Your task to perform on an android device: What's the weather going to be this weekend? Image 0: 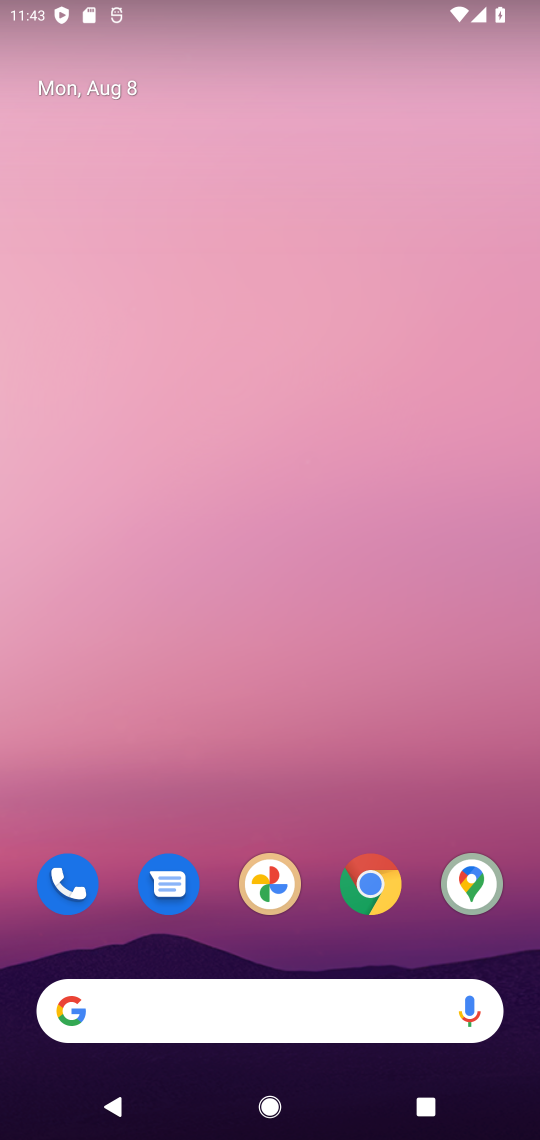
Step 0: click (100, 1023)
Your task to perform on an android device: What's the weather going to be this weekend? Image 1: 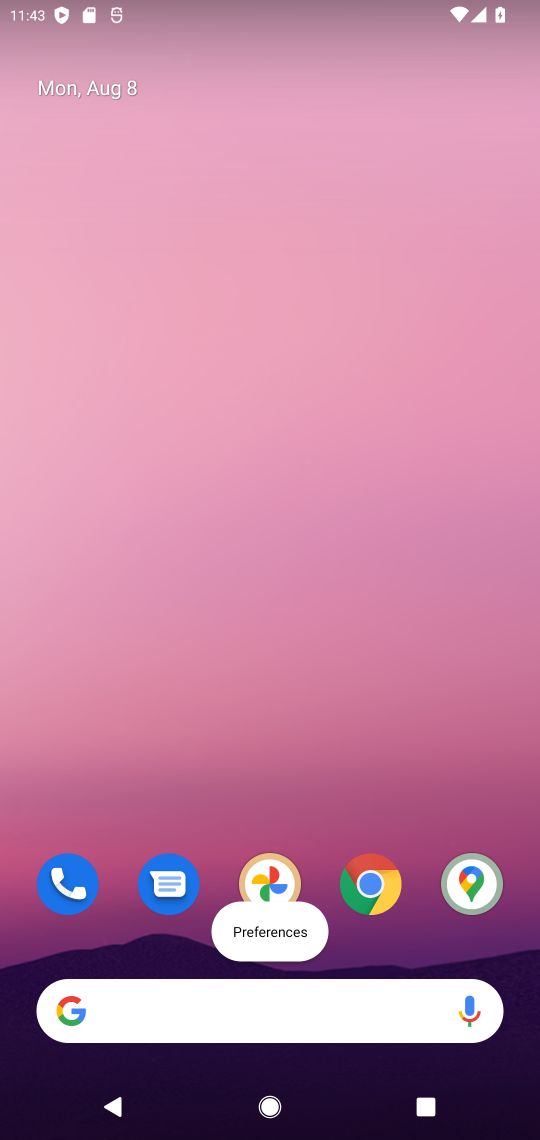
Step 1: type "What's the weather going to be this weekend?"
Your task to perform on an android device: What's the weather going to be this weekend? Image 2: 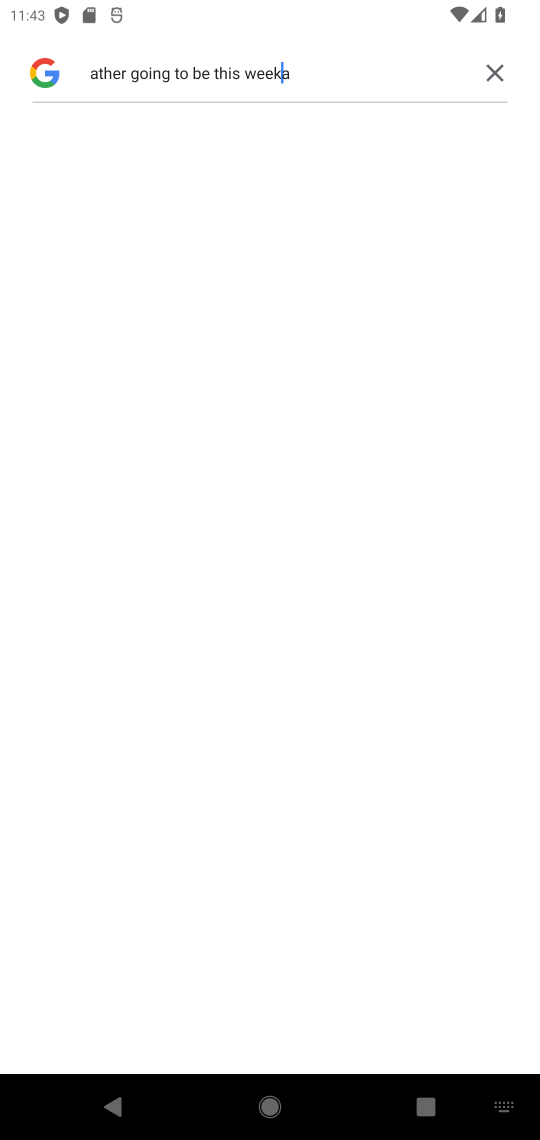
Step 2: type ""
Your task to perform on an android device: What's the weather going to be this weekend? Image 3: 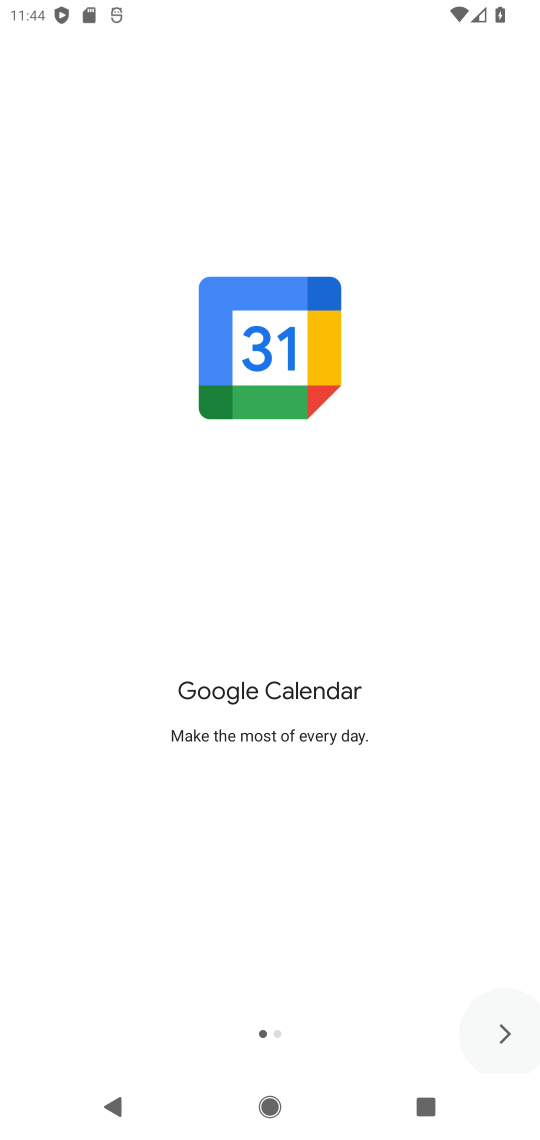
Step 3: click (513, 1018)
Your task to perform on an android device: What's the weather going to be this weekend? Image 4: 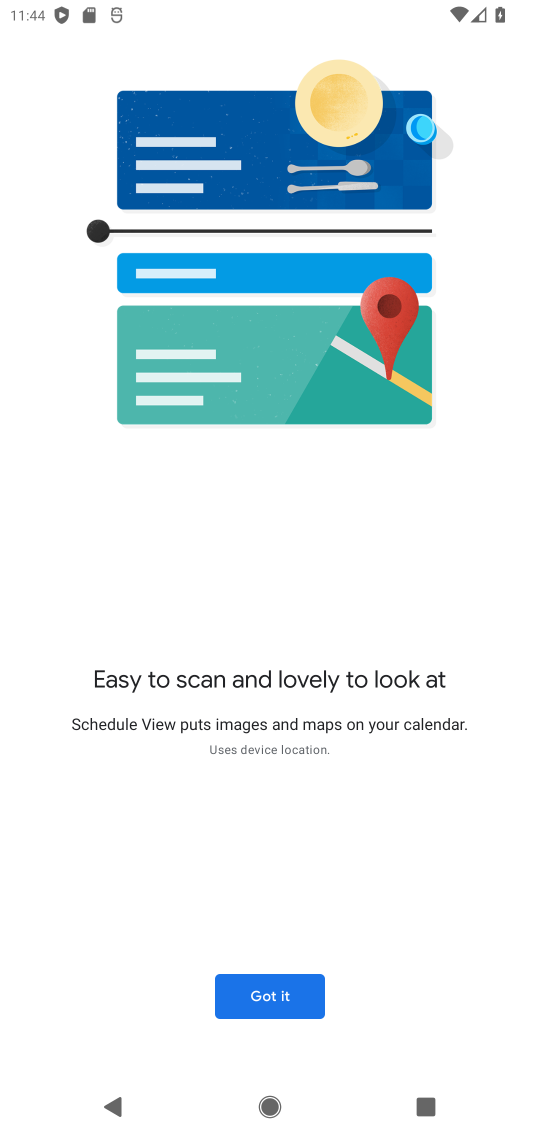
Step 4: press home button
Your task to perform on an android device: What's the weather going to be this weekend? Image 5: 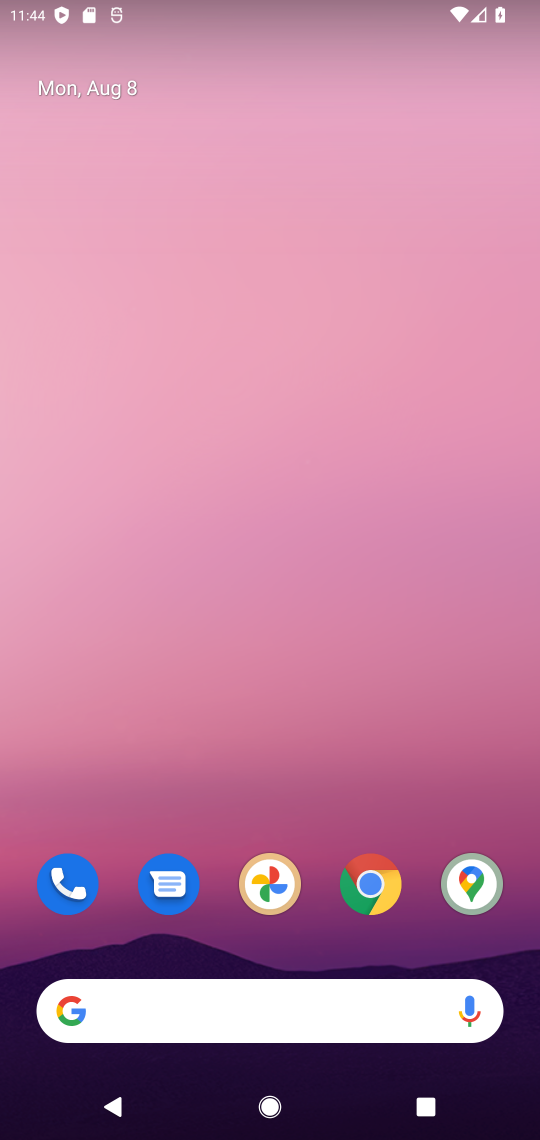
Step 5: click (291, 1019)
Your task to perform on an android device: What's the weather going to be this weekend? Image 6: 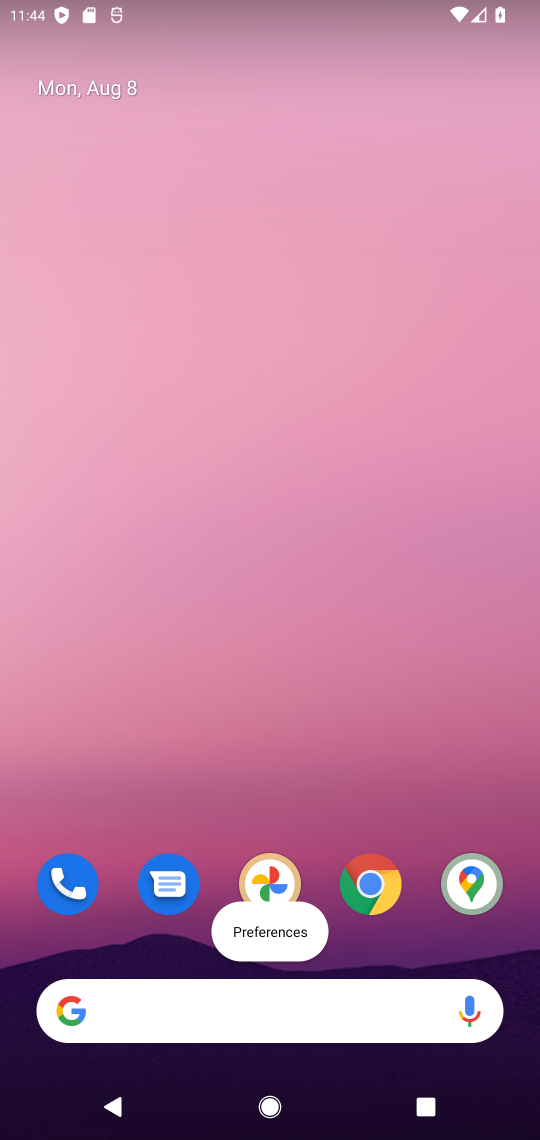
Step 6: type "What's the weather going to be this weekend?"
Your task to perform on an android device: What's the weather going to be this weekend? Image 7: 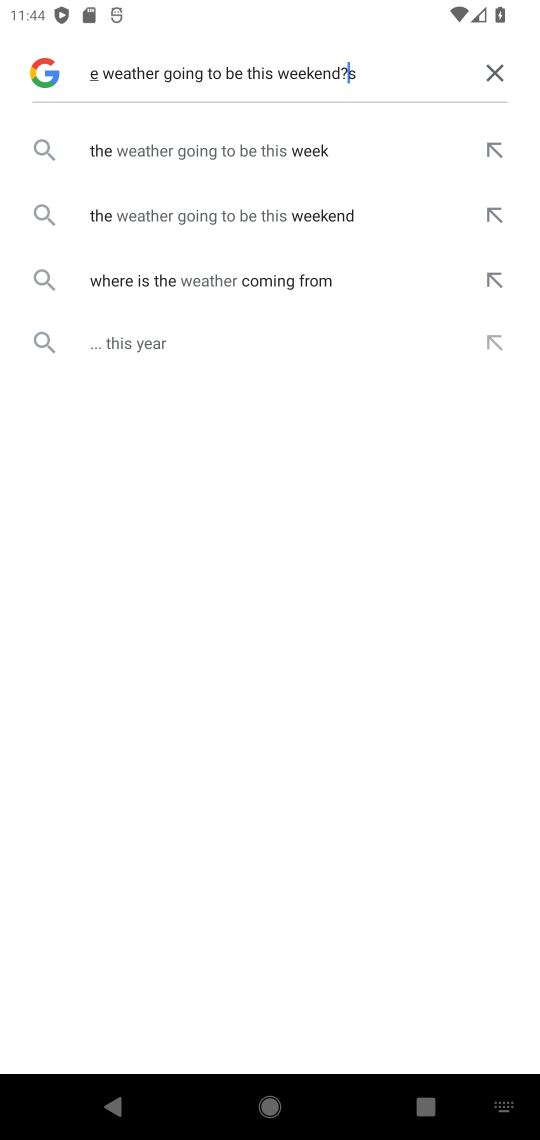
Step 7: type ""
Your task to perform on an android device: What's the weather going to be this weekend? Image 8: 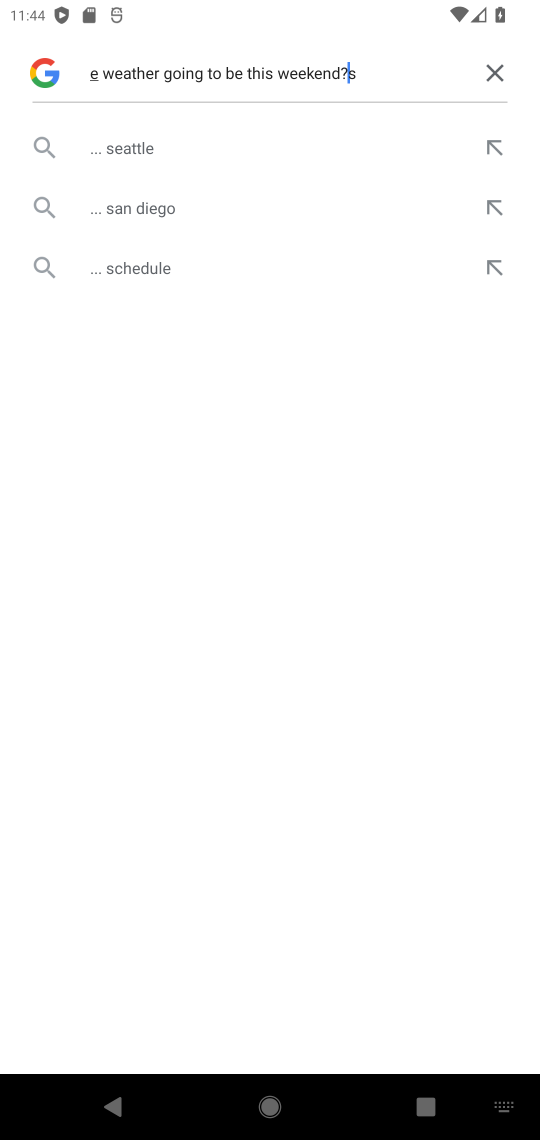
Step 8: press enter
Your task to perform on an android device: What's the weather going to be this weekend? Image 9: 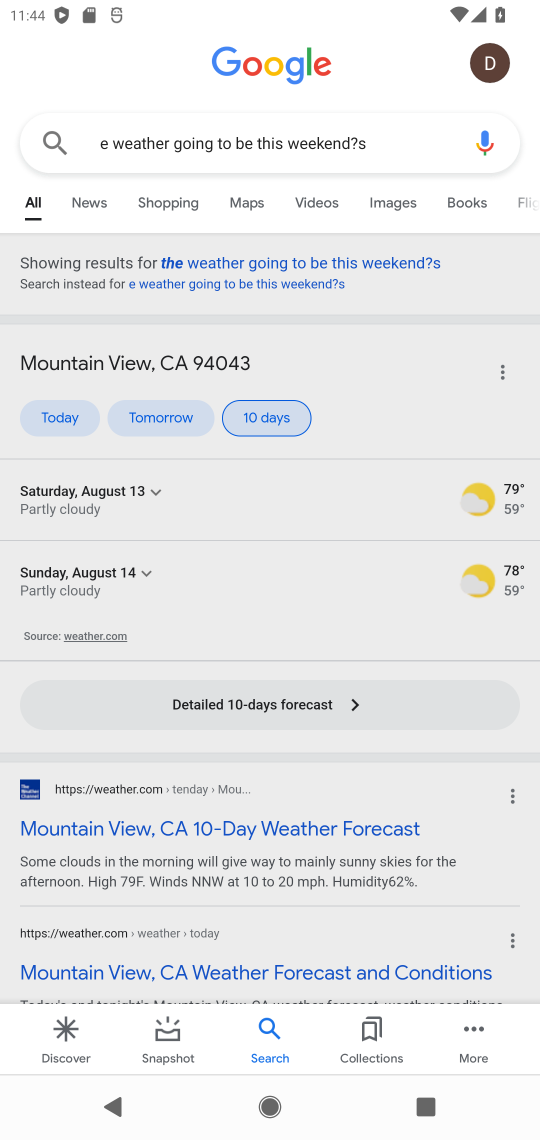
Step 9: task complete